Your task to perform on an android device: change notification settings in the gmail app Image 0: 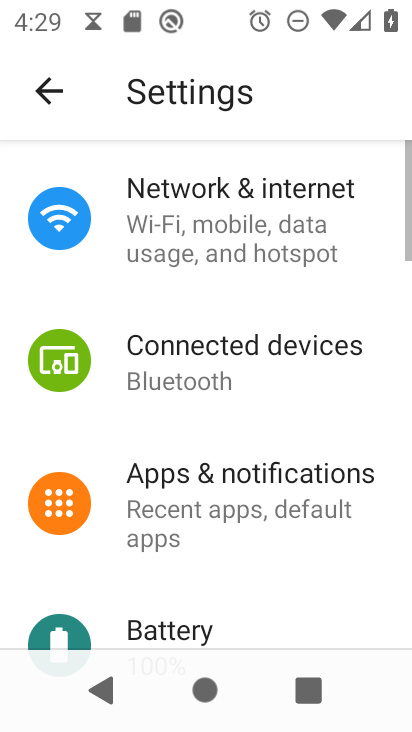
Step 0: press home button
Your task to perform on an android device: change notification settings in the gmail app Image 1: 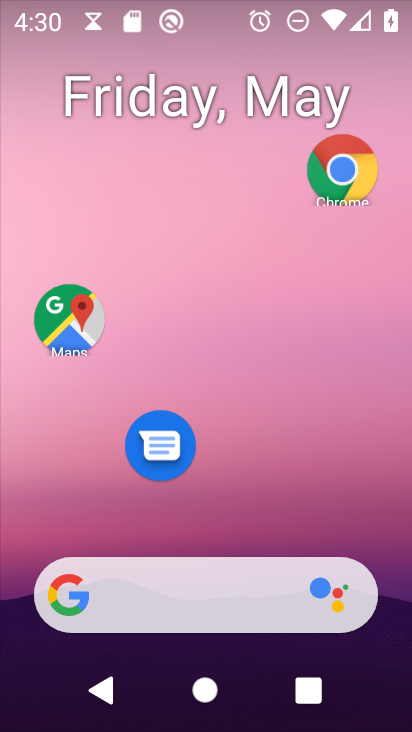
Step 1: drag from (228, 529) to (225, 20)
Your task to perform on an android device: change notification settings in the gmail app Image 2: 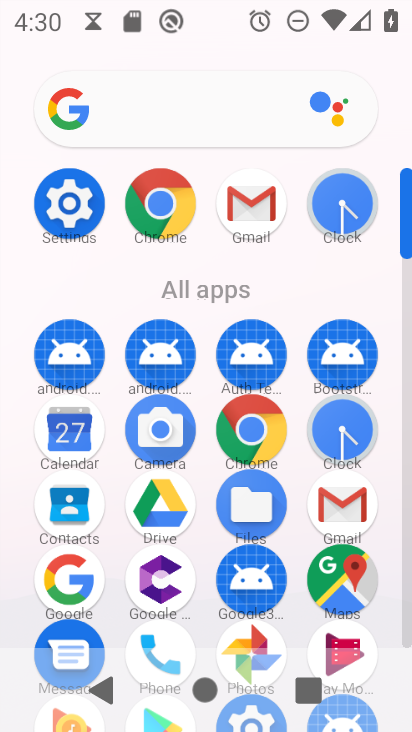
Step 2: click (261, 217)
Your task to perform on an android device: change notification settings in the gmail app Image 3: 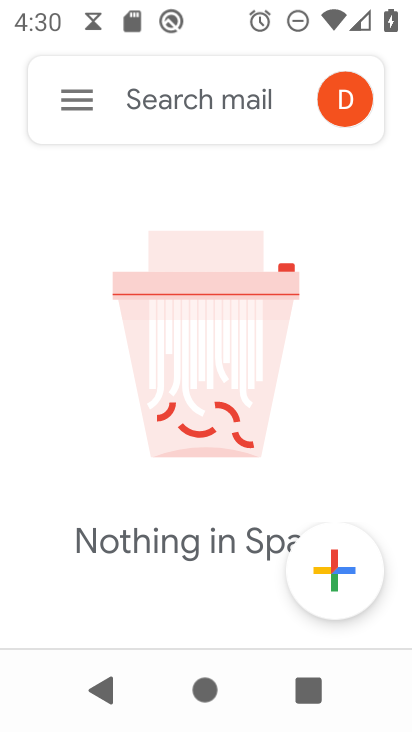
Step 3: click (66, 109)
Your task to perform on an android device: change notification settings in the gmail app Image 4: 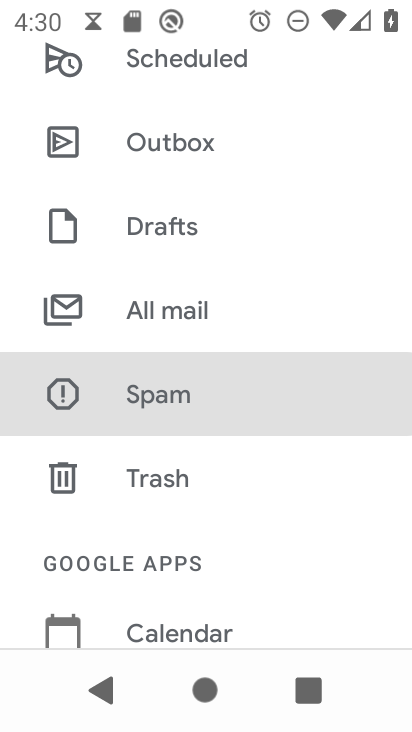
Step 4: drag from (193, 574) to (258, 113)
Your task to perform on an android device: change notification settings in the gmail app Image 5: 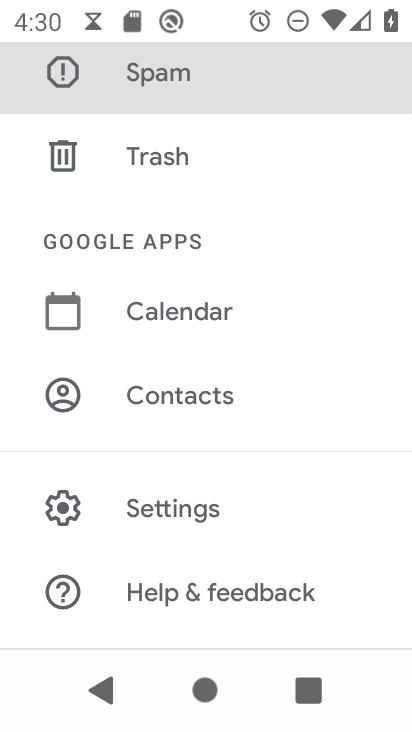
Step 5: click (187, 516)
Your task to perform on an android device: change notification settings in the gmail app Image 6: 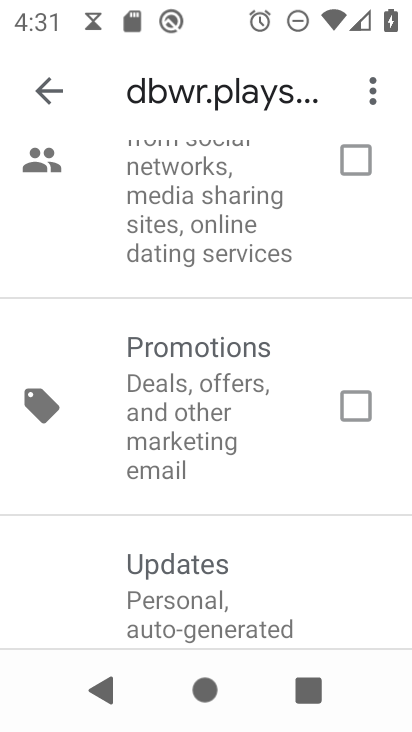
Step 6: drag from (188, 276) to (181, 543)
Your task to perform on an android device: change notification settings in the gmail app Image 7: 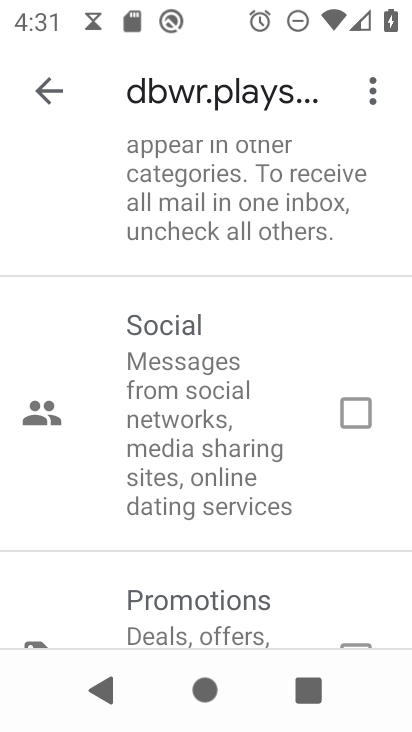
Step 7: drag from (236, 266) to (232, 713)
Your task to perform on an android device: change notification settings in the gmail app Image 8: 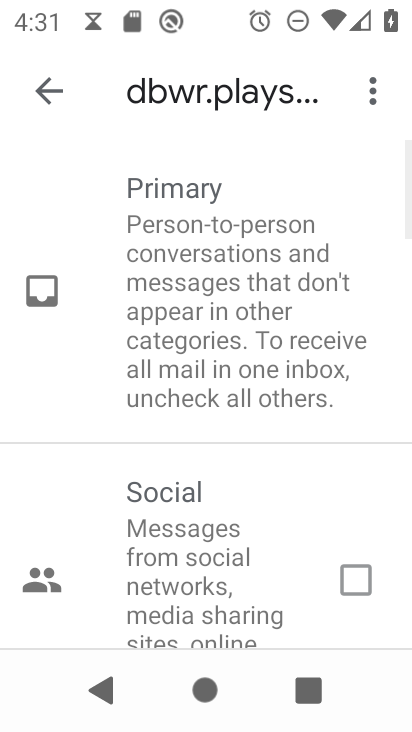
Step 8: drag from (200, 157) to (207, 583)
Your task to perform on an android device: change notification settings in the gmail app Image 9: 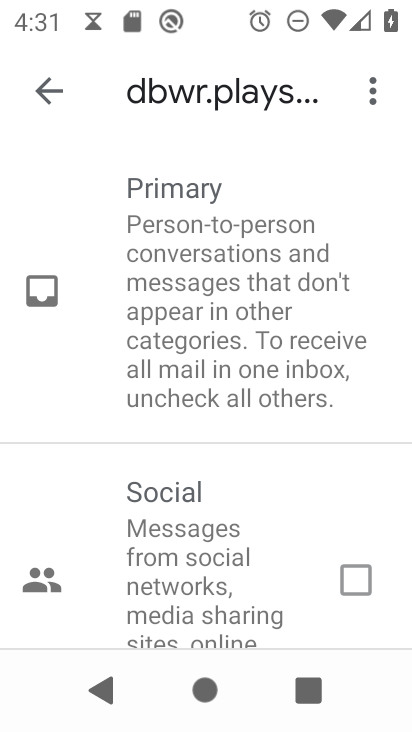
Step 9: drag from (221, 274) to (213, 676)
Your task to perform on an android device: change notification settings in the gmail app Image 10: 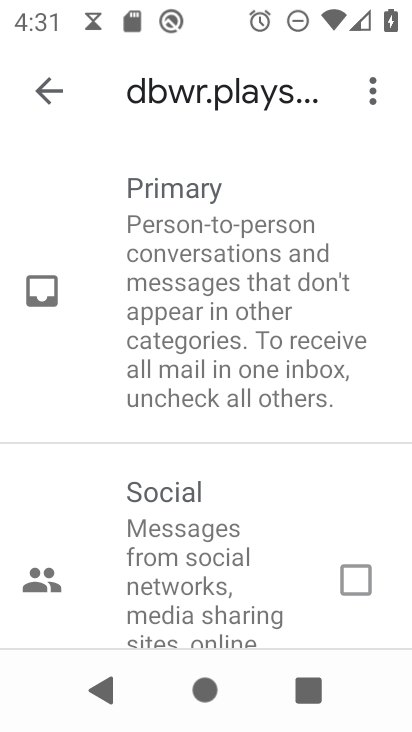
Step 10: drag from (197, 154) to (175, 486)
Your task to perform on an android device: change notification settings in the gmail app Image 11: 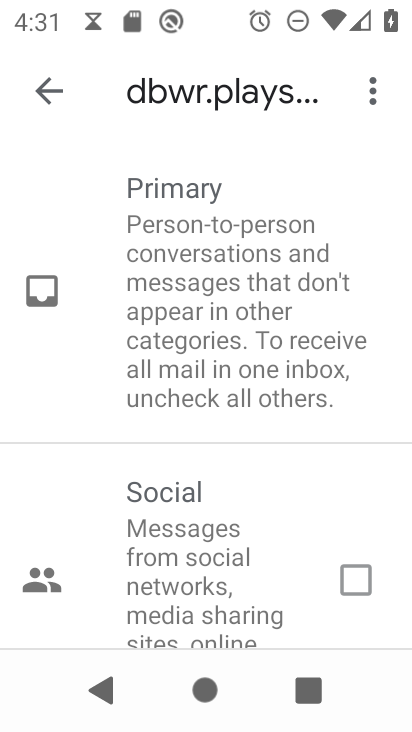
Step 11: drag from (134, 557) to (232, 87)
Your task to perform on an android device: change notification settings in the gmail app Image 12: 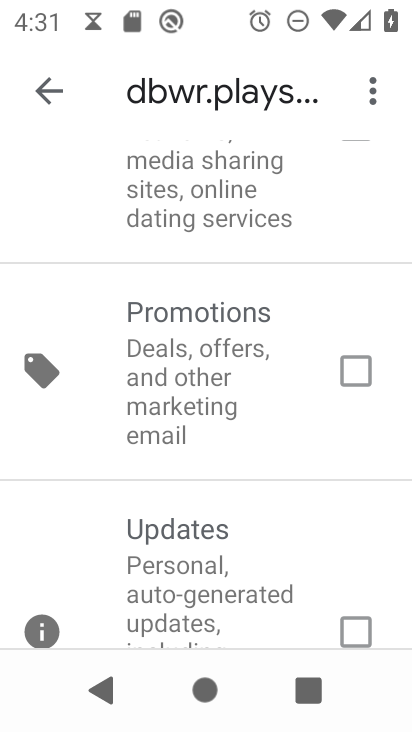
Step 12: drag from (242, 557) to (274, 322)
Your task to perform on an android device: change notification settings in the gmail app Image 13: 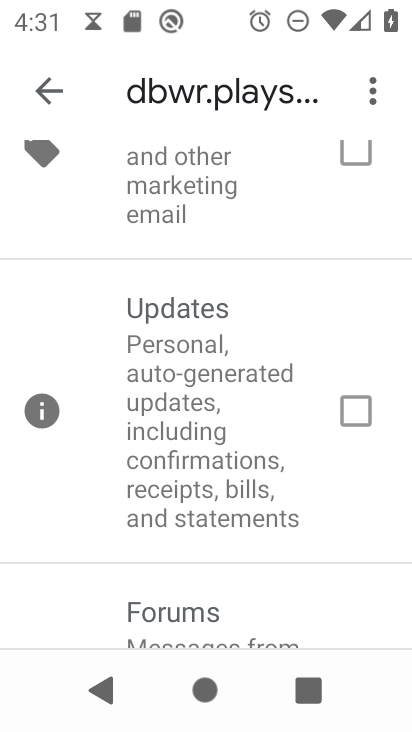
Step 13: drag from (174, 557) to (229, 193)
Your task to perform on an android device: change notification settings in the gmail app Image 14: 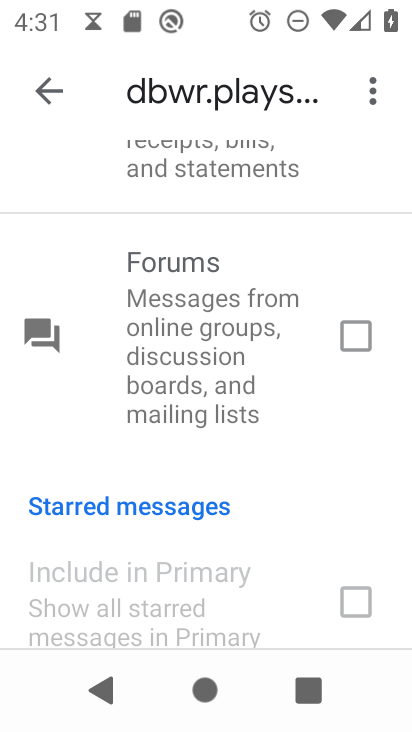
Step 14: drag from (203, 531) to (228, 243)
Your task to perform on an android device: change notification settings in the gmail app Image 15: 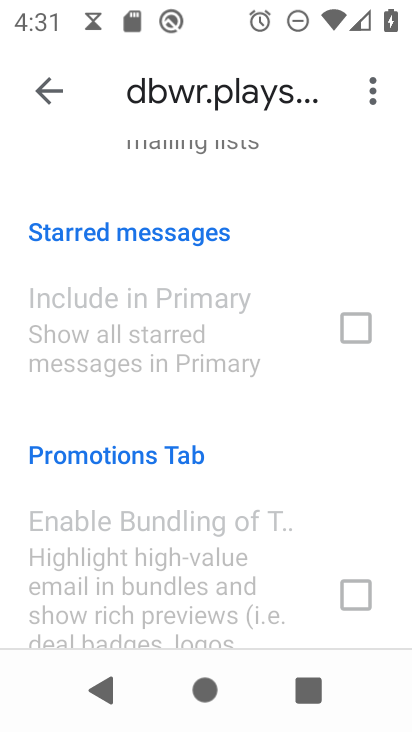
Step 15: click (48, 93)
Your task to perform on an android device: change notification settings in the gmail app Image 16: 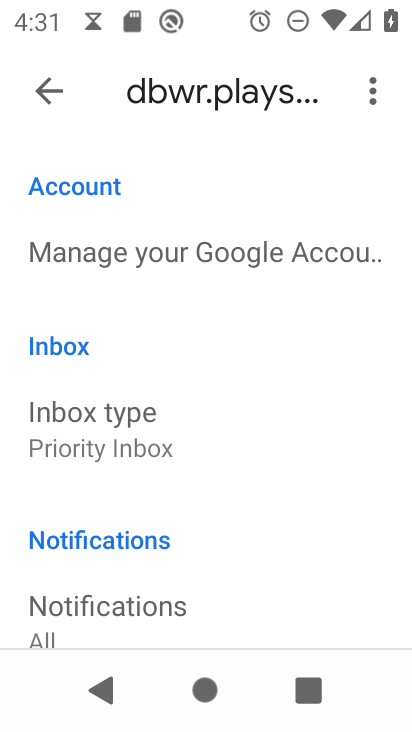
Step 16: click (103, 616)
Your task to perform on an android device: change notification settings in the gmail app Image 17: 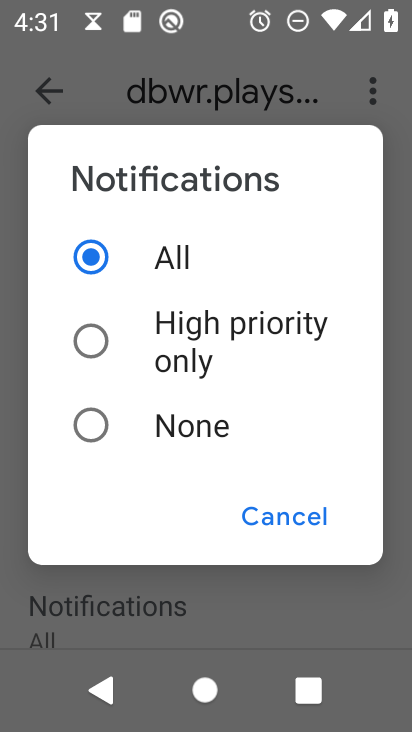
Step 17: click (89, 418)
Your task to perform on an android device: change notification settings in the gmail app Image 18: 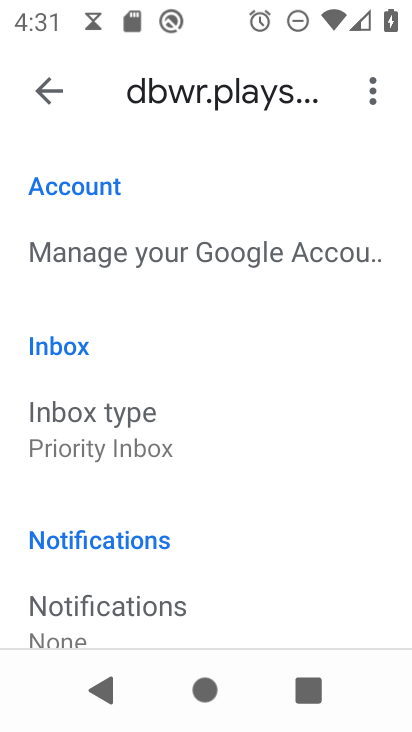
Step 18: task complete